Your task to perform on an android device: Go to network settings Image 0: 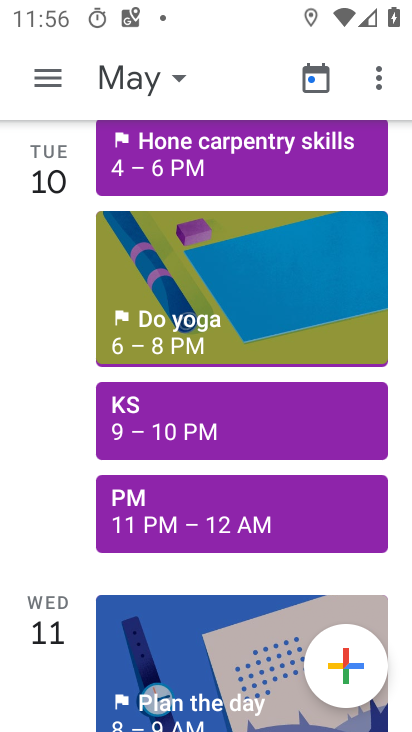
Step 0: press home button
Your task to perform on an android device: Go to network settings Image 1: 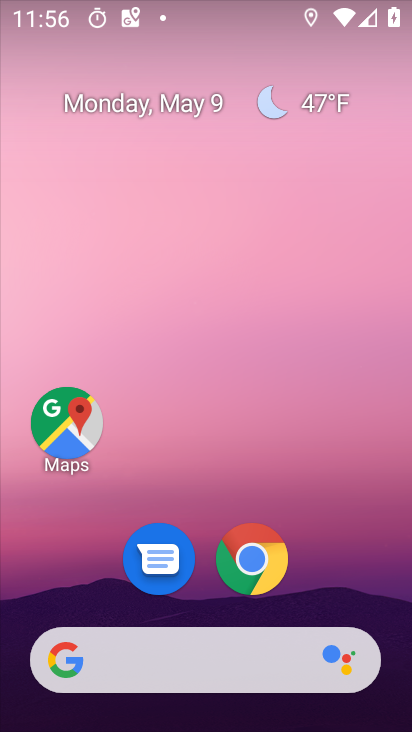
Step 1: drag from (320, 583) to (276, 146)
Your task to perform on an android device: Go to network settings Image 2: 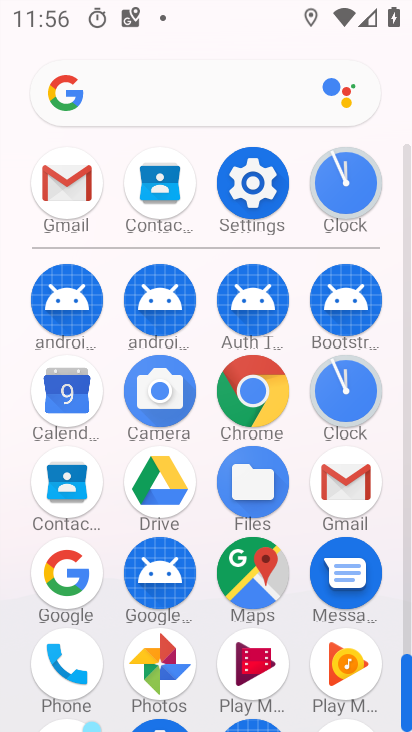
Step 2: click (254, 168)
Your task to perform on an android device: Go to network settings Image 3: 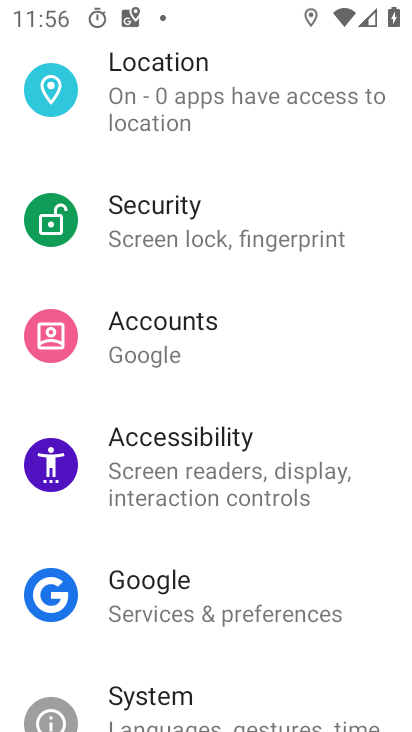
Step 3: drag from (233, 174) to (204, 720)
Your task to perform on an android device: Go to network settings Image 4: 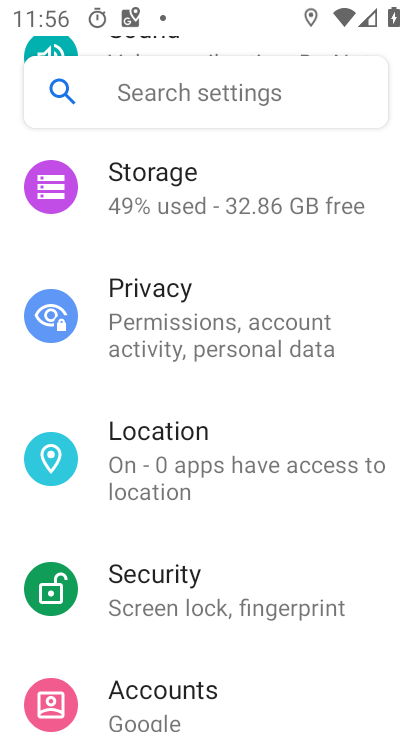
Step 4: drag from (200, 444) to (198, 637)
Your task to perform on an android device: Go to network settings Image 5: 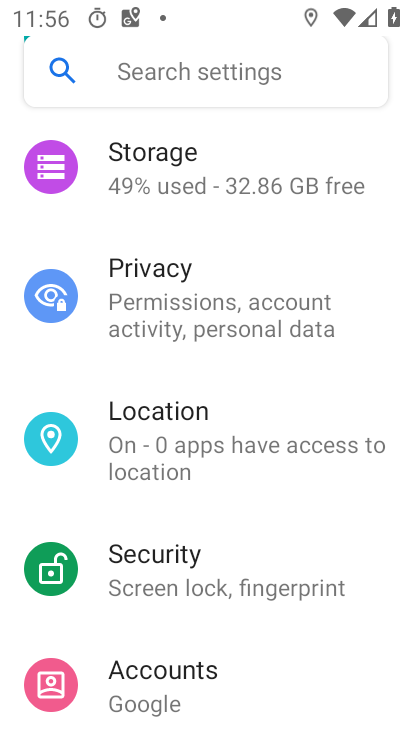
Step 5: drag from (224, 433) to (234, 715)
Your task to perform on an android device: Go to network settings Image 6: 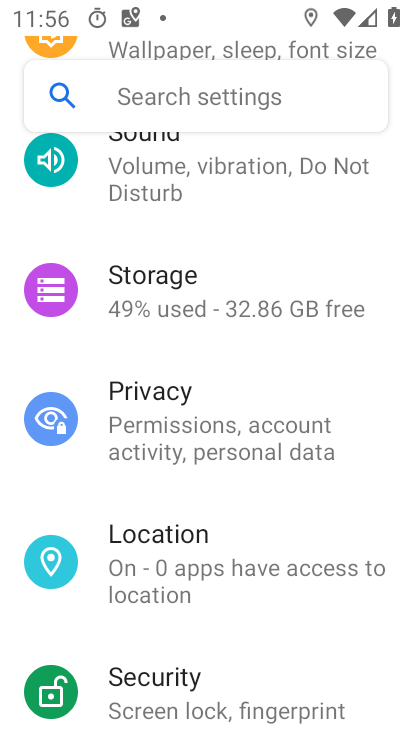
Step 6: drag from (234, 437) to (246, 710)
Your task to perform on an android device: Go to network settings Image 7: 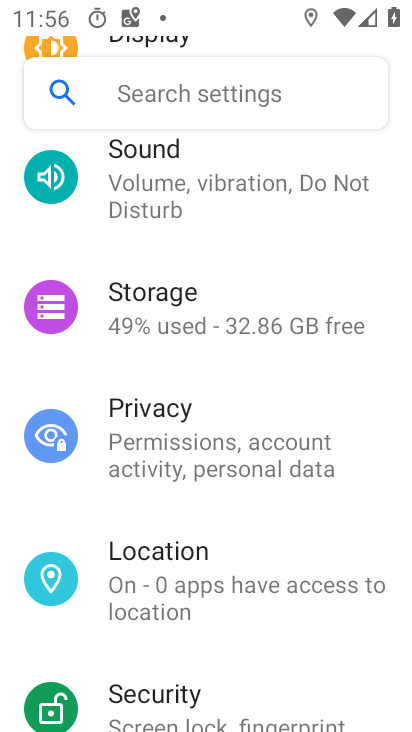
Step 7: drag from (244, 419) to (262, 688)
Your task to perform on an android device: Go to network settings Image 8: 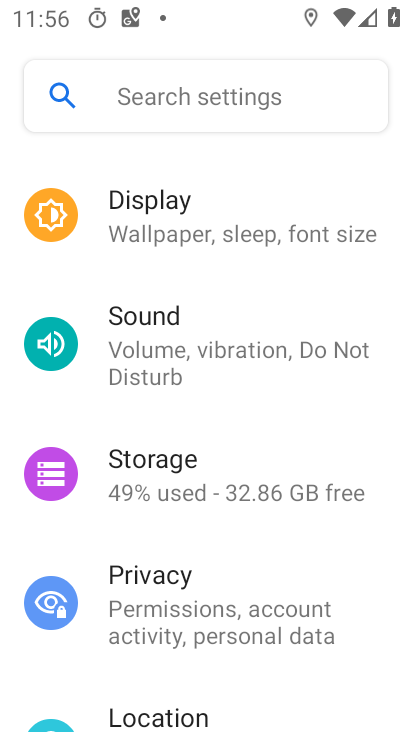
Step 8: drag from (247, 267) to (254, 710)
Your task to perform on an android device: Go to network settings Image 9: 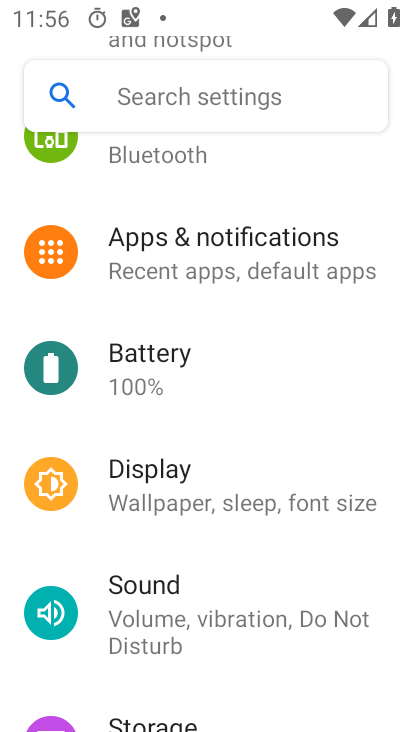
Step 9: drag from (254, 489) to (269, 685)
Your task to perform on an android device: Go to network settings Image 10: 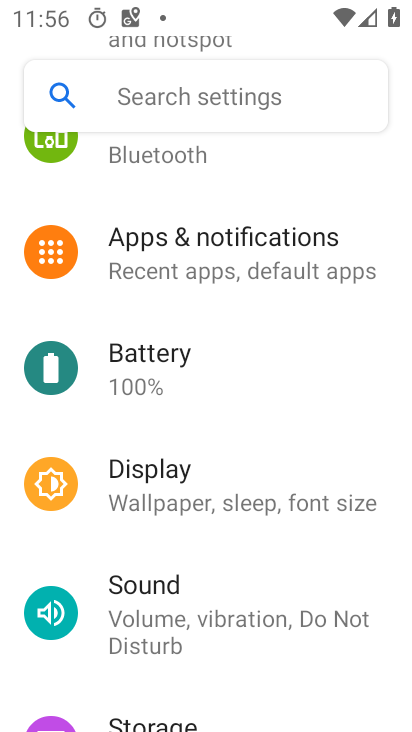
Step 10: drag from (282, 399) to (233, 727)
Your task to perform on an android device: Go to network settings Image 11: 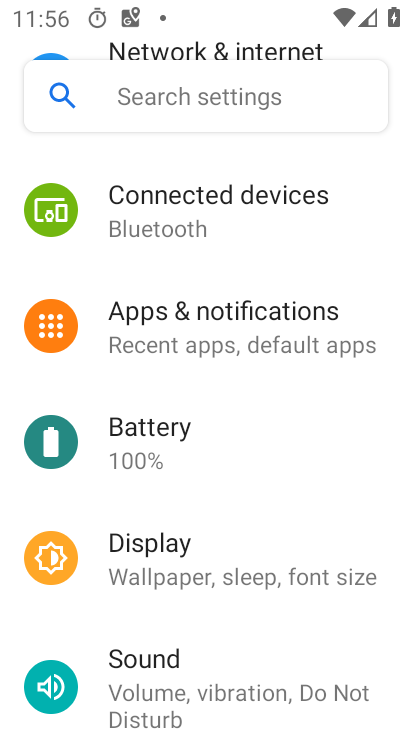
Step 11: drag from (266, 427) to (318, 728)
Your task to perform on an android device: Go to network settings Image 12: 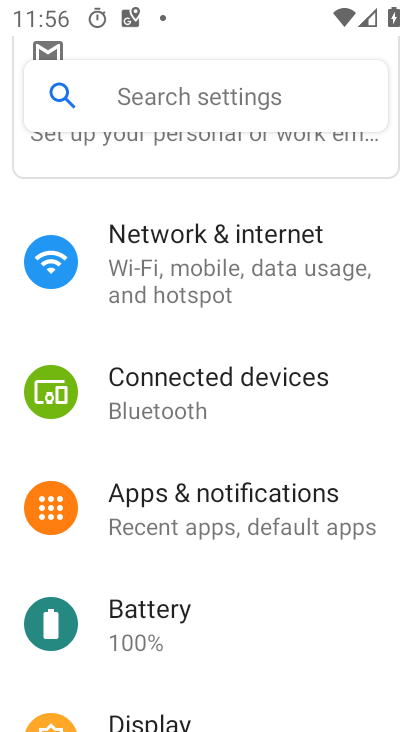
Step 12: drag from (271, 466) to (218, 709)
Your task to perform on an android device: Go to network settings Image 13: 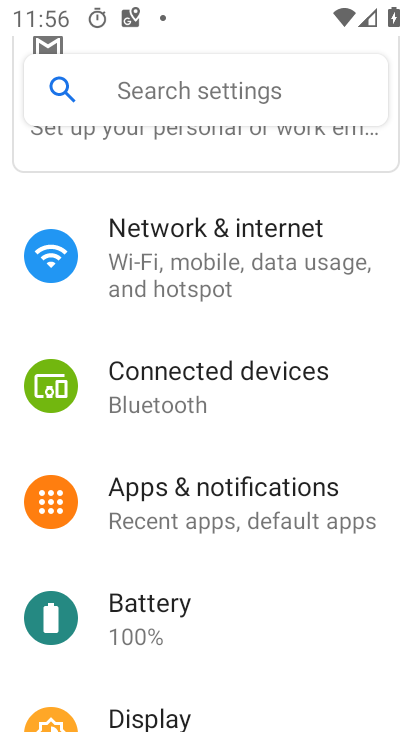
Step 13: click (266, 289)
Your task to perform on an android device: Go to network settings Image 14: 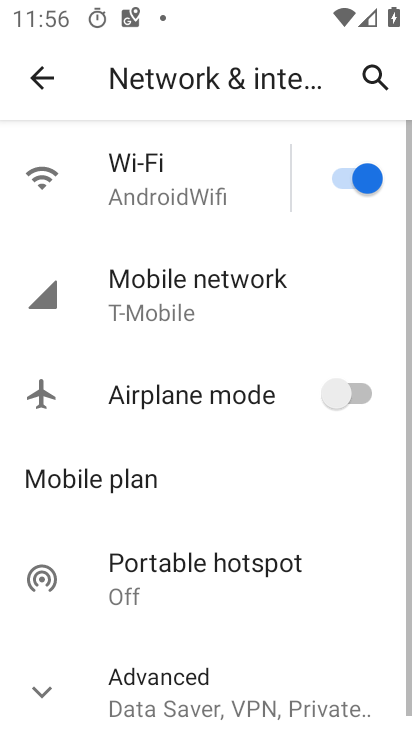
Step 14: task complete